Your task to perform on an android device: Open Maps and search for coffee Image 0: 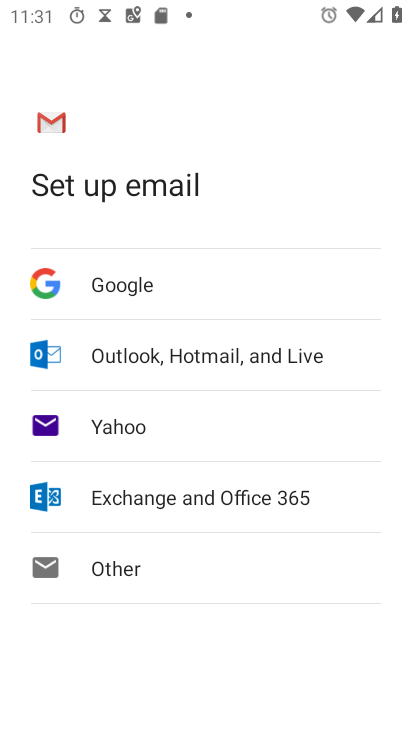
Step 0: press home button
Your task to perform on an android device: Open Maps and search for coffee Image 1: 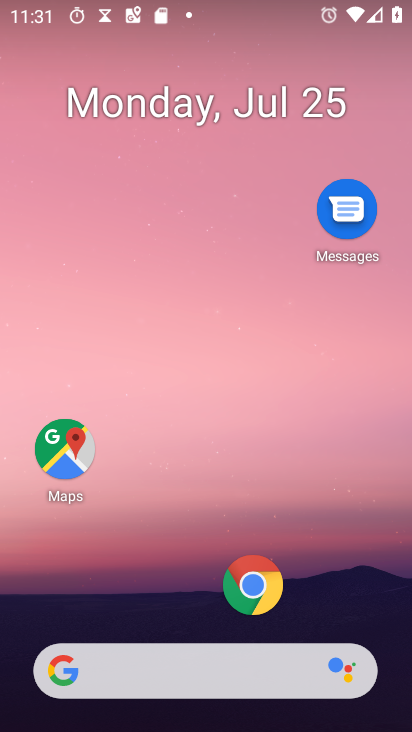
Step 1: click (62, 458)
Your task to perform on an android device: Open Maps and search for coffee Image 2: 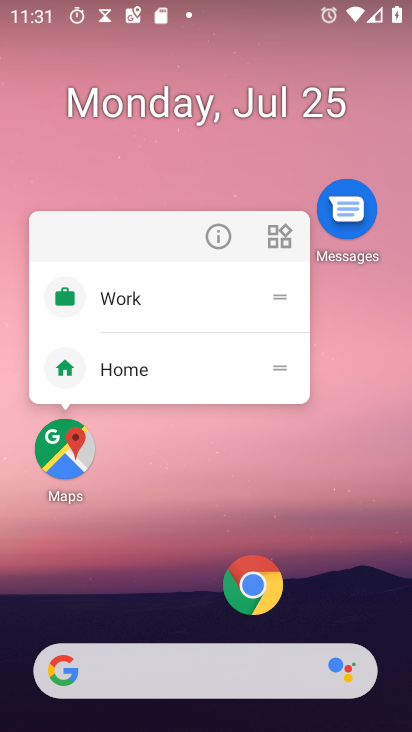
Step 2: click (72, 449)
Your task to perform on an android device: Open Maps and search for coffee Image 3: 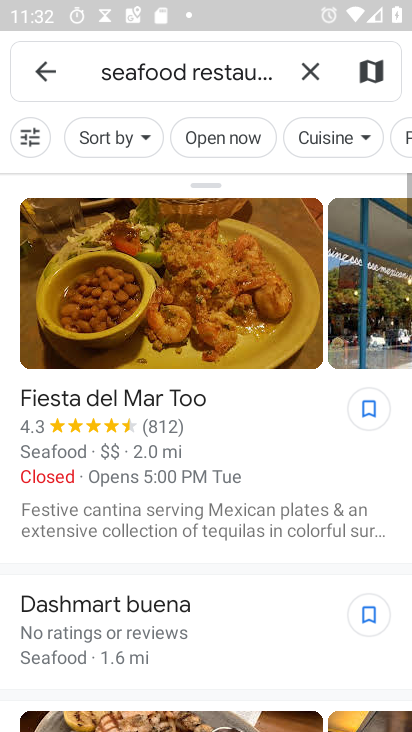
Step 3: click (306, 75)
Your task to perform on an android device: Open Maps and search for coffee Image 4: 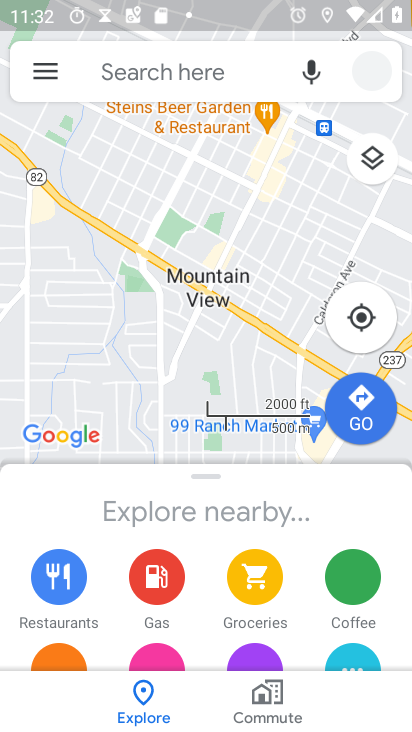
Step 4: click (202, 62)
Your task to perform on an android device: Open Maps and search for coffee Image 5: 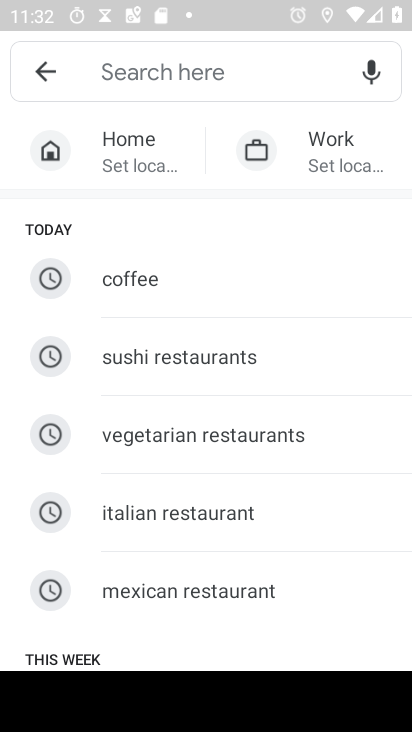
Step 5: click (134, 281)
Your task to perform on an android device: Open Maps and search for coffee Image 6: 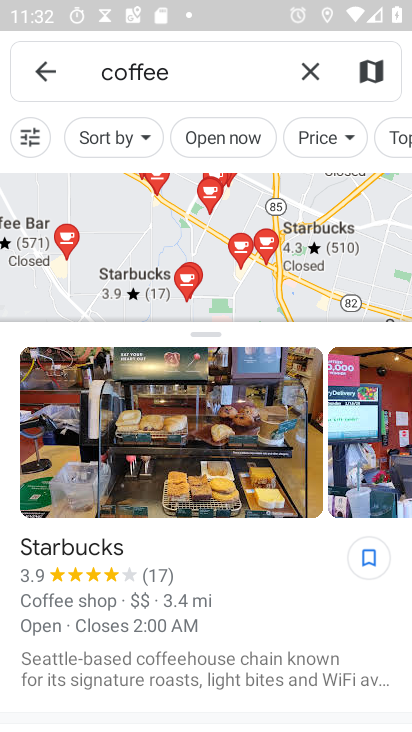
Step 6: task complete